Your task to perform on an android device: turn on wifi Image 0: 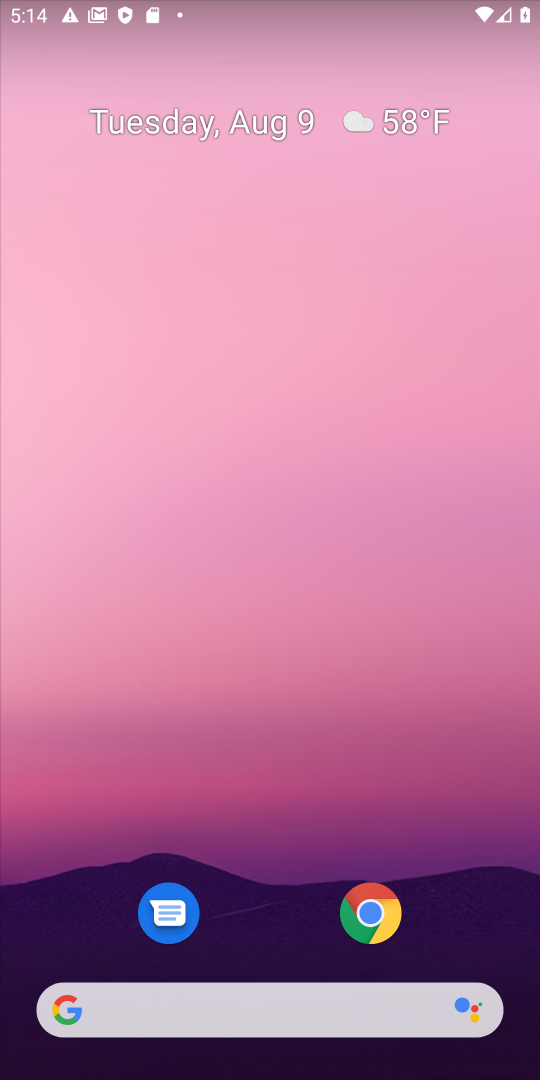
Step 0: drag from (277, 906) to (277, 281)
Your task to perform on an android device: turn on wifi Image 1: 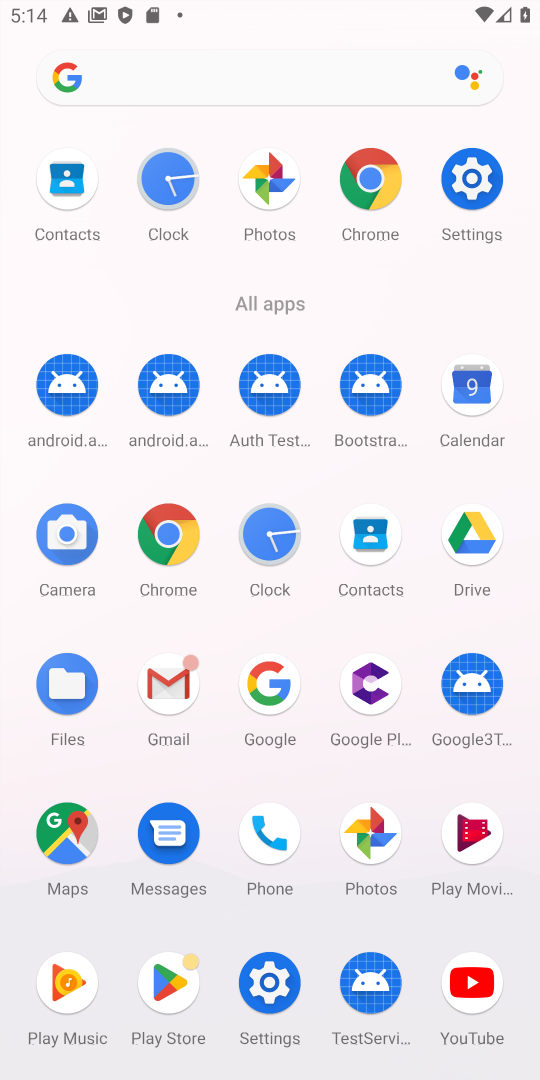
Step 1: click (473, 149)
Your task to perform on an android device: turn on wifi Image 2: 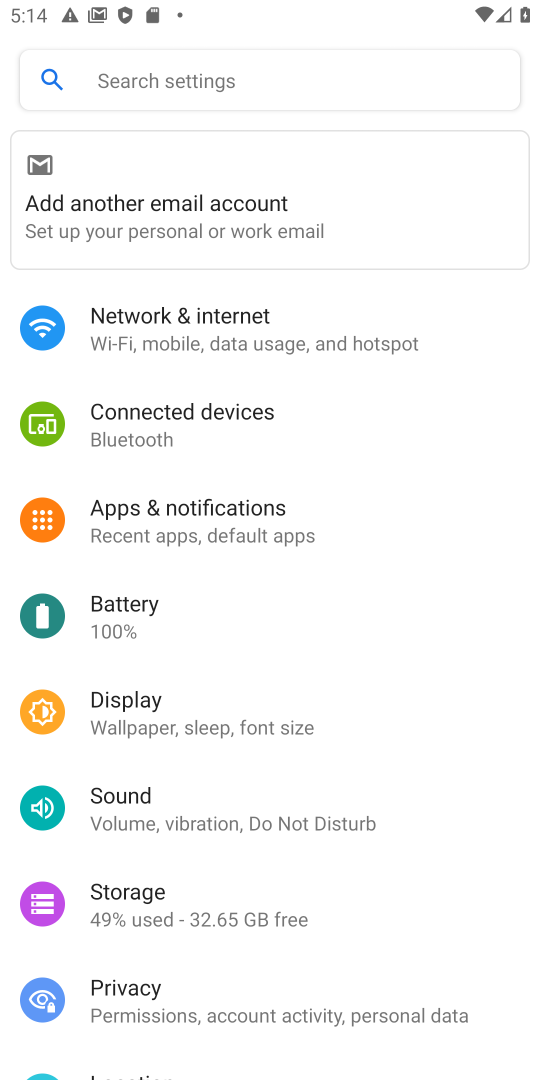
Step 2: click (221, 308)
Your task to perform on an android device: turn on wifi Image 3: 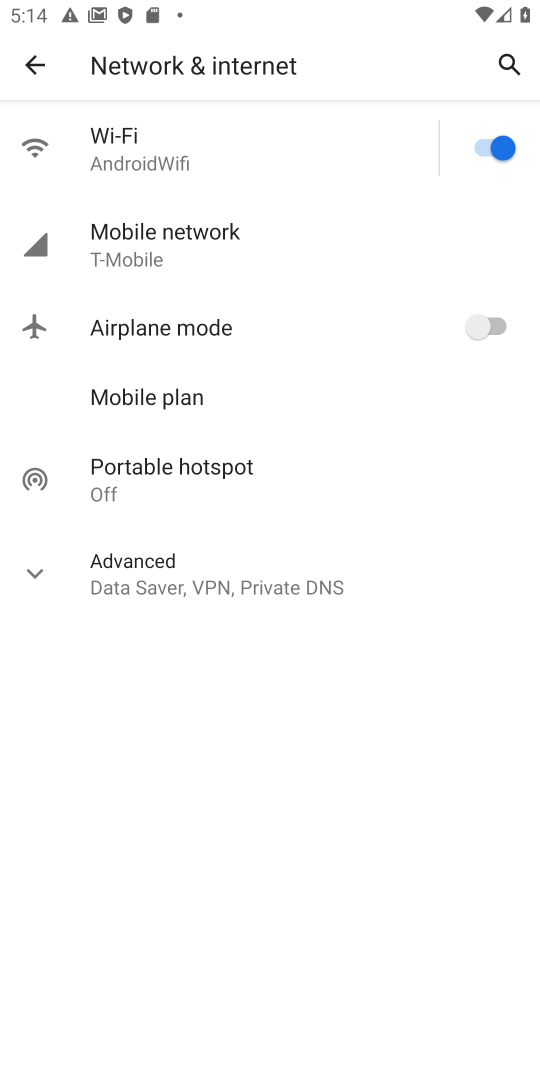
Step 3: task complete